Your task to perform on an android device: Go to Amazon Image 0: 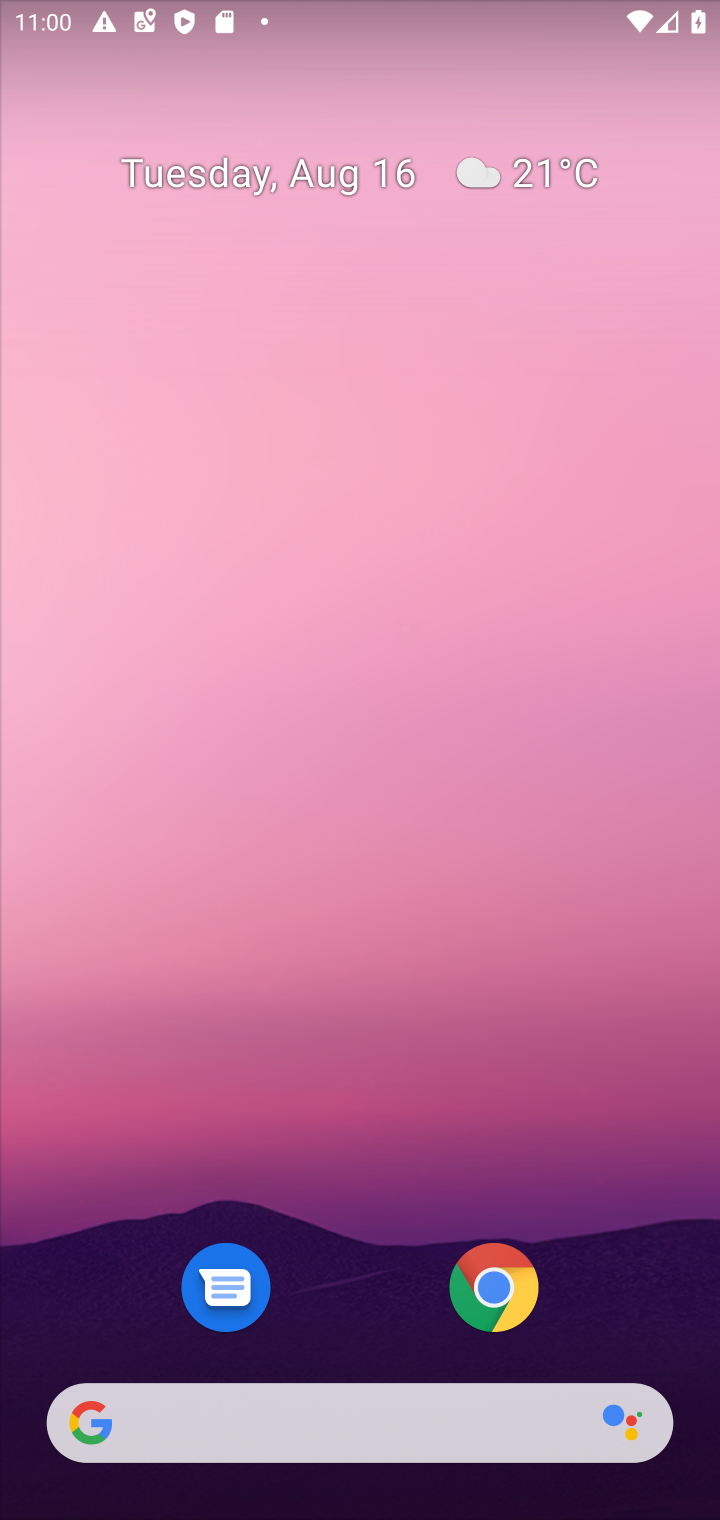
Step 0: click (496, 1293)
Your task to perform on an android device: Go to Amazon Image 1: 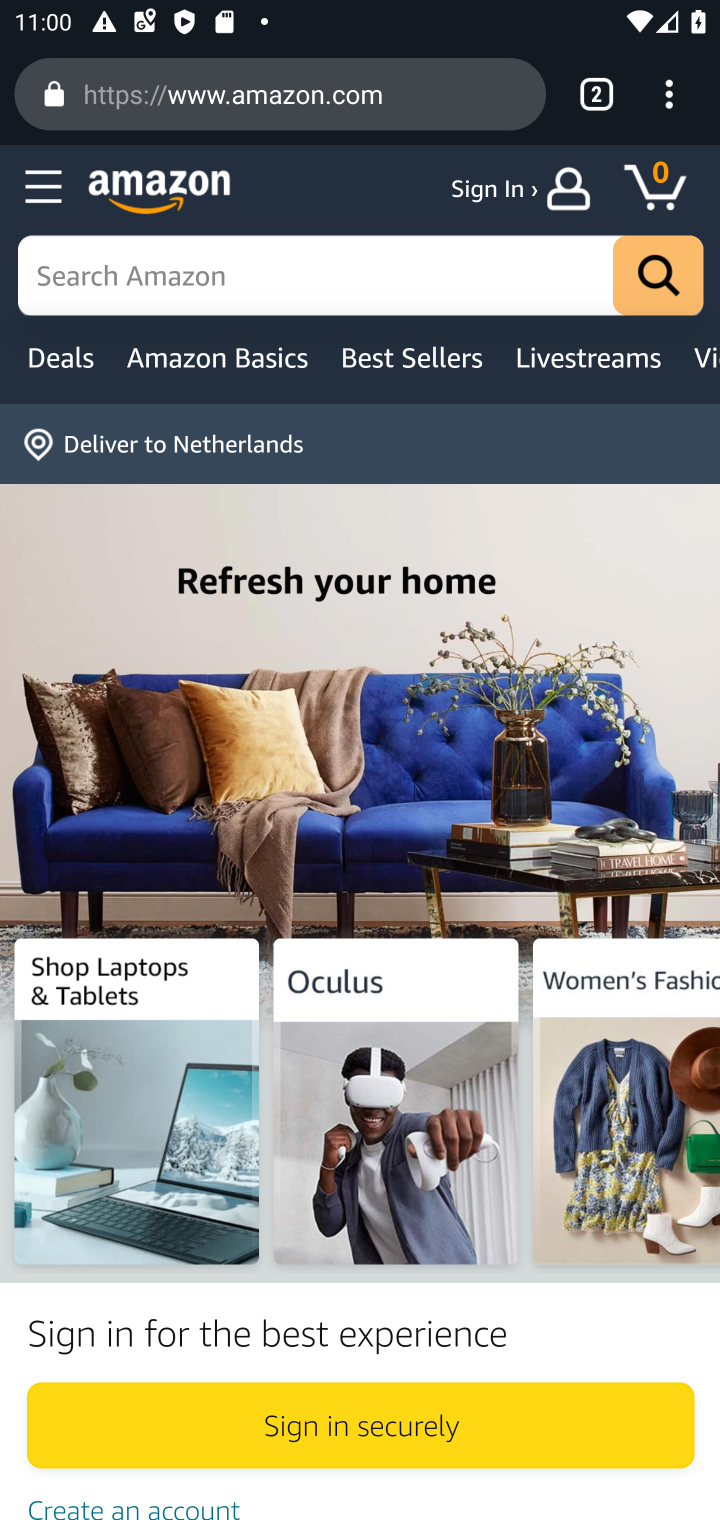
Step 1: task complete